Your task to perform on an android device: change the clock display to digital Image 0: 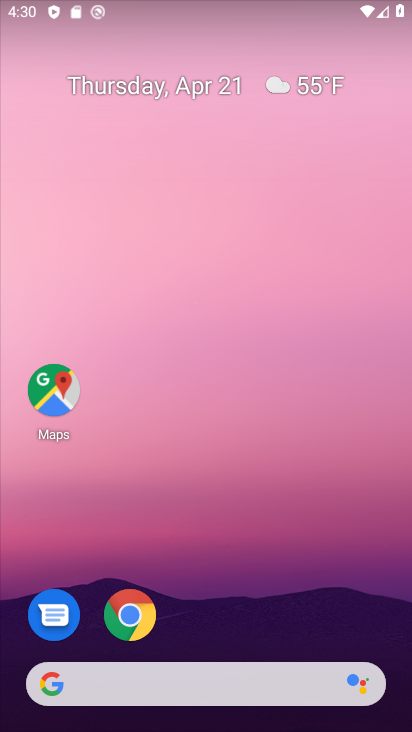
Step 0: drag from (258, 603) to (225, 18)
Your task to perform on an android device: change the clock display to digital Image 1: 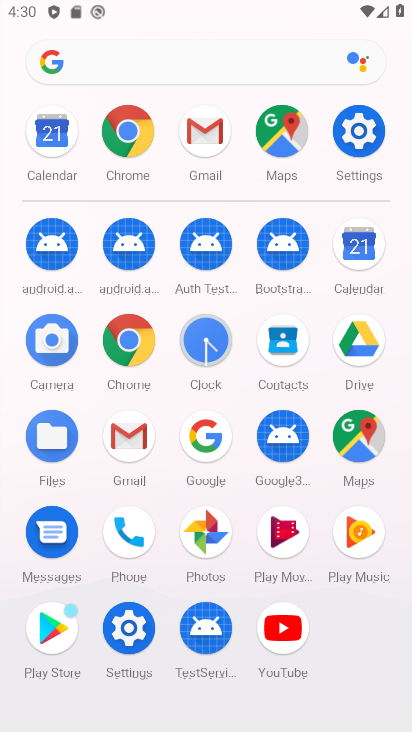
Step 1: drag from (6, 532) to (20, 261)
Your task to perform on an android device: change the clock display to digital Image 2: 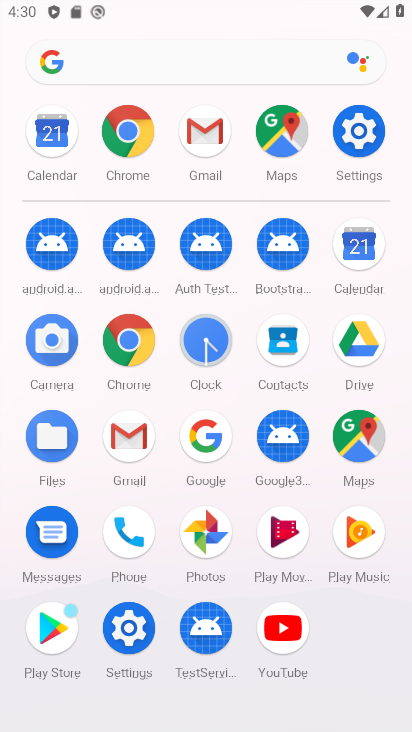
Step 2: drag from (4, 595) to (7, 396)
Your task to perform on an android device: change the clock display to digital Image 3: 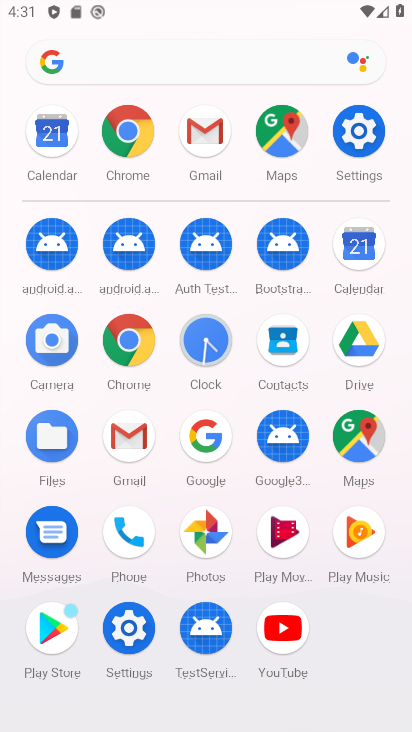
Step 3: drag from (14, 579) to (14, 329)
Your task to perform on an android device: change the clock display to digital Image 4: 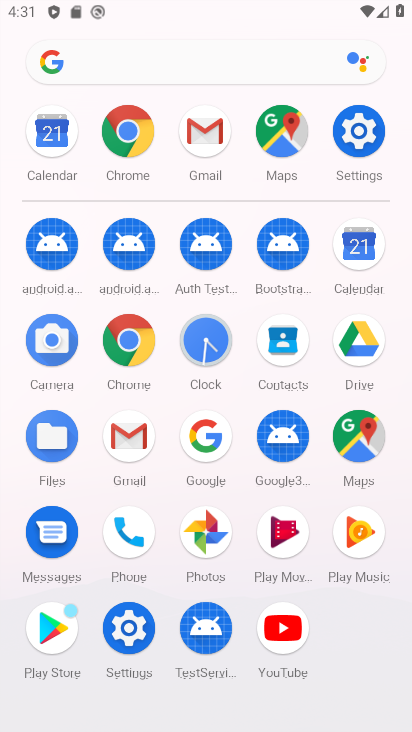
Step 4: drag from (15, 347) to (25, 226)
Your task to perform on an android device: change the clock display to digital Image 5: 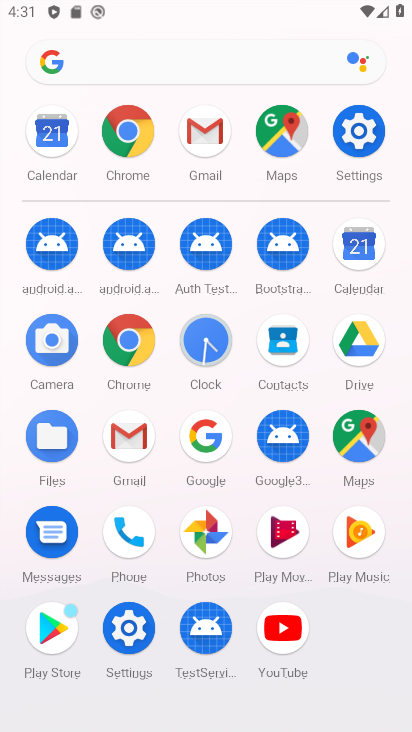
Step 5: click (202, 342)
Your task to perform on an android device: change the clock display to digital Image 6: 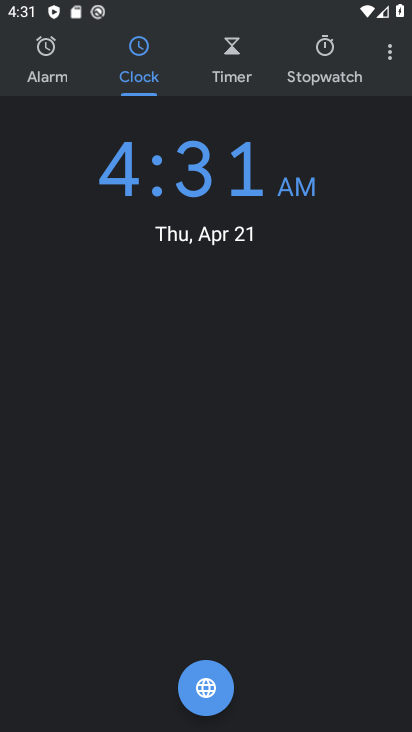
Step 6: click (391, 58)
Your task to perform on an android device: change the clock display to digital Image 7: 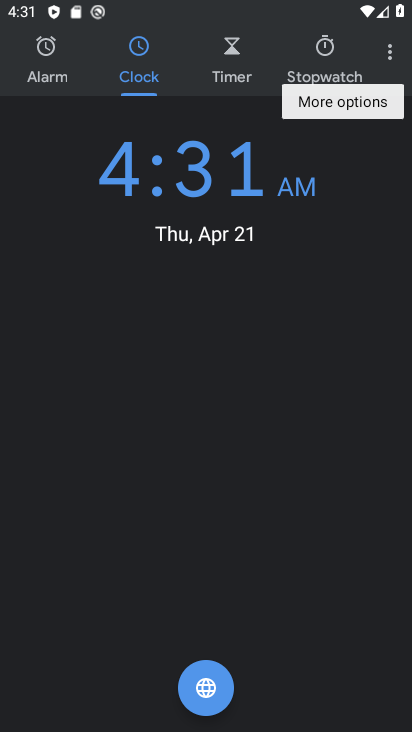
Step 7: click (390, 56)
Your task to perform on an android device: change the clock display to digital Image 8: 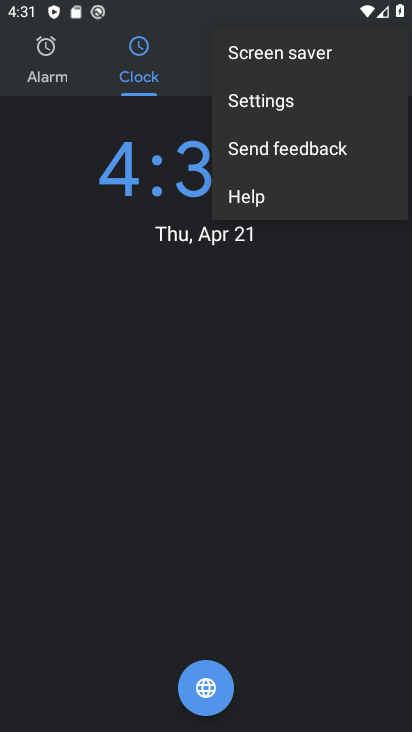
Step 8: click (302, 95)
Your task to perform on an android device: change the clock display to digital Image 9: 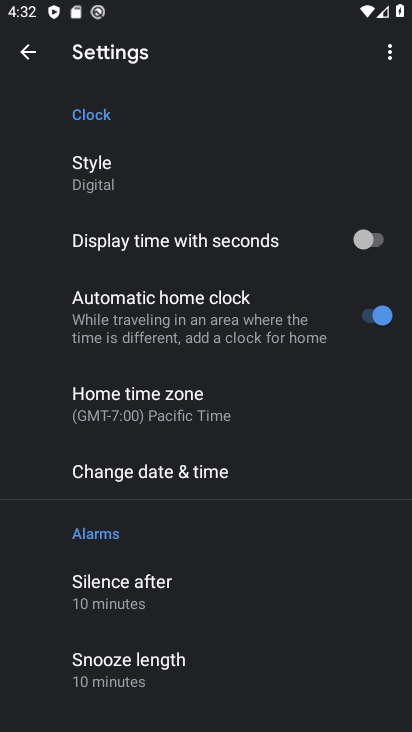
Step 9: click (143, 172)
Your task to perform on an android device: change the clock display to digital Image 10: 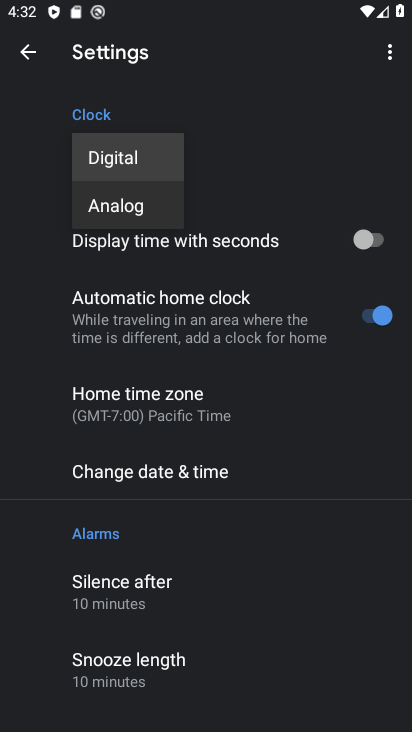
Step 10: click (147, 147)
Your task to perform on an android device: change the clock display to digital Image 11: 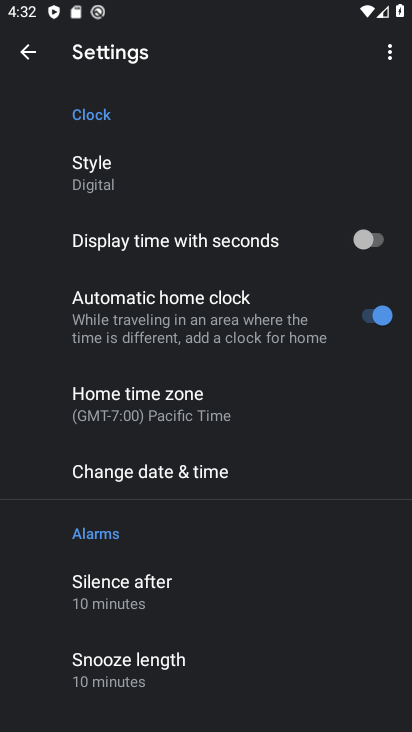
Step 11: task complete